Your task to perform on an android device: toggle sleep mode Image 0: 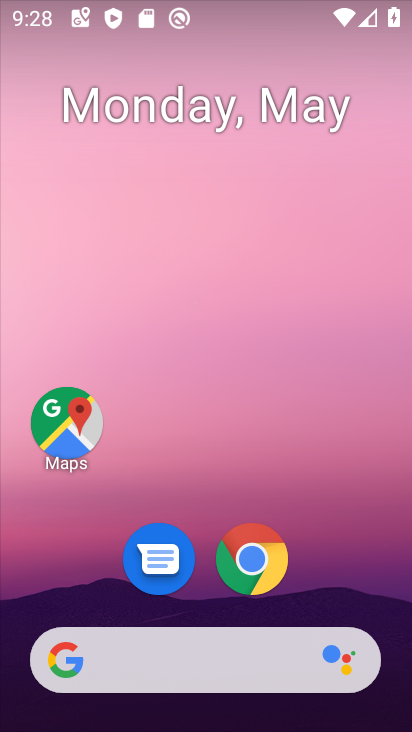
Step 0: drag from (320, 596) to (221, 214)
Your task to perform on an android device: toggle sleep mode Image 1: 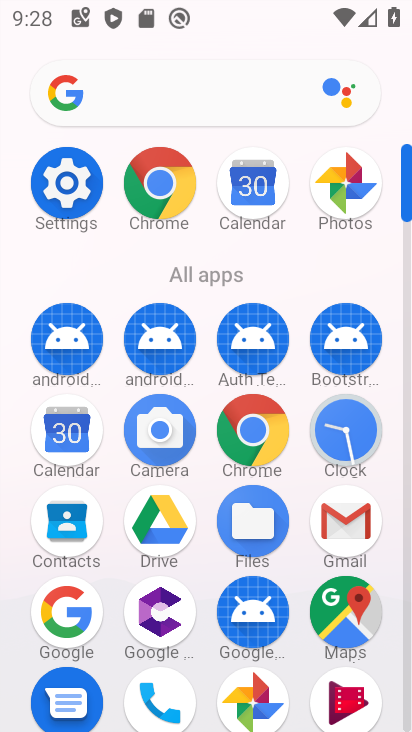
Step 1: click (67, 183)
Your task to perform on an android device: toggle sleep mode Image 2: 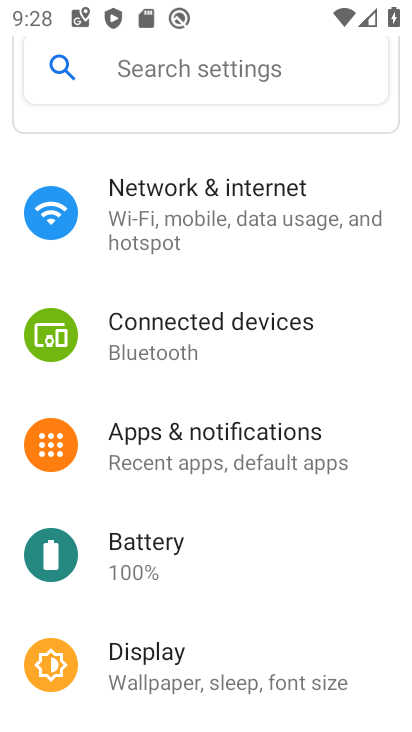
Step 2: click (176, 656)
Your task to perform on an android device: toggle sleep mode Image 3: 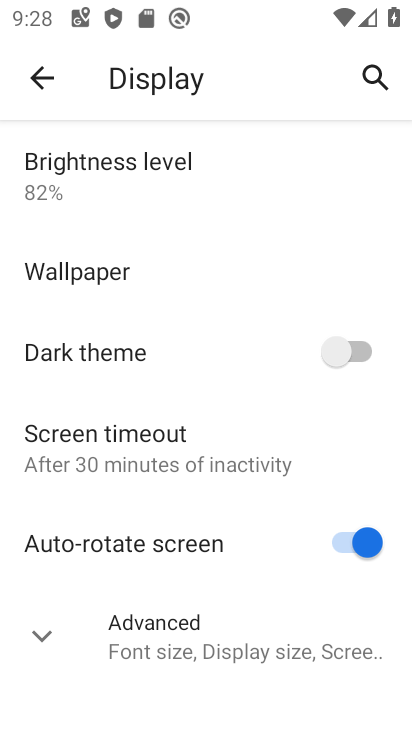
Step 3: task complete